Your task to perform on an android device: Check the news Image 0: 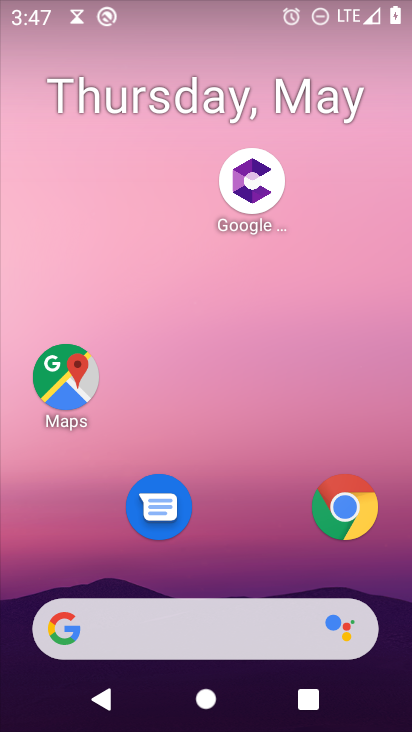
Step 0: press home button
Your task to perform on an android device: Check the news Image 1: 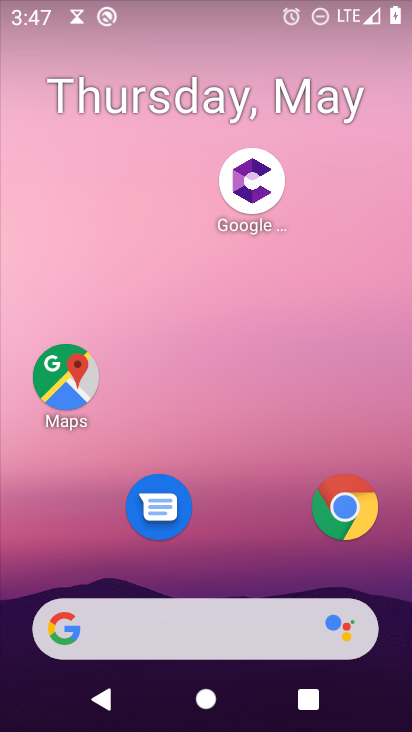
Step 1: click (53, 624)
Your task to perform on an android device: Check the news Image 2: 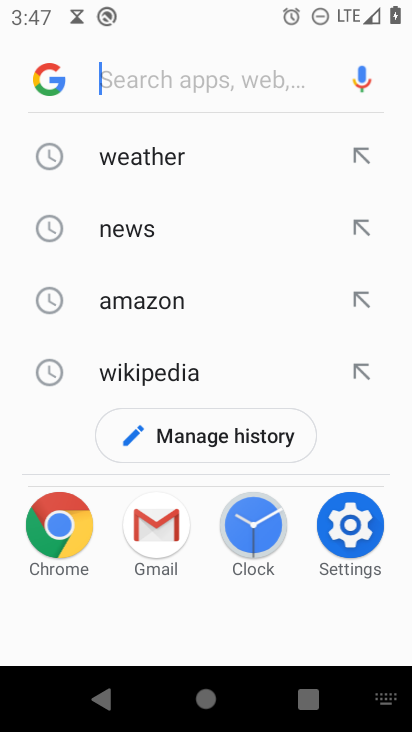
Step 2: click (143, 236)
Your task to perform on an android device: Check the news Image 3: 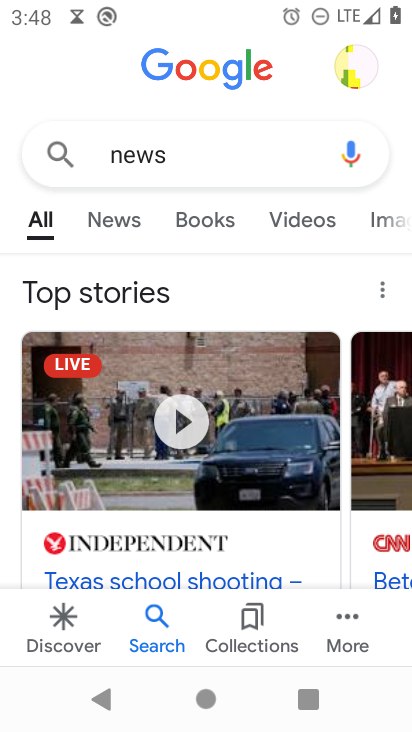
Step 3: task complete